Your task to perform on an android device: change the clock style Image 0: 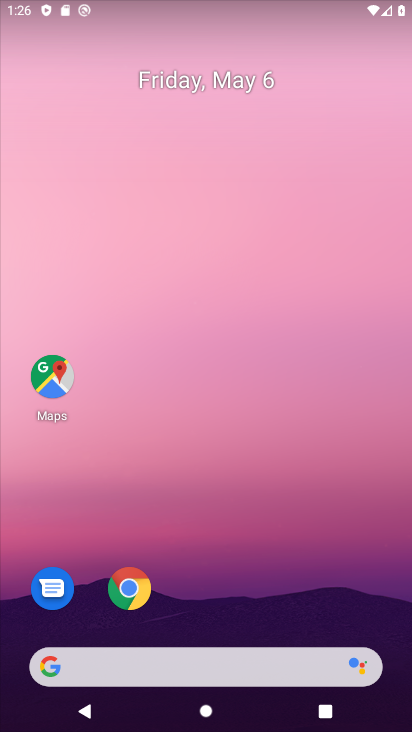
Step 0: drag from (402, 571) to (290, 109)
Your task to perform on an android device: change the clock style Image 1: 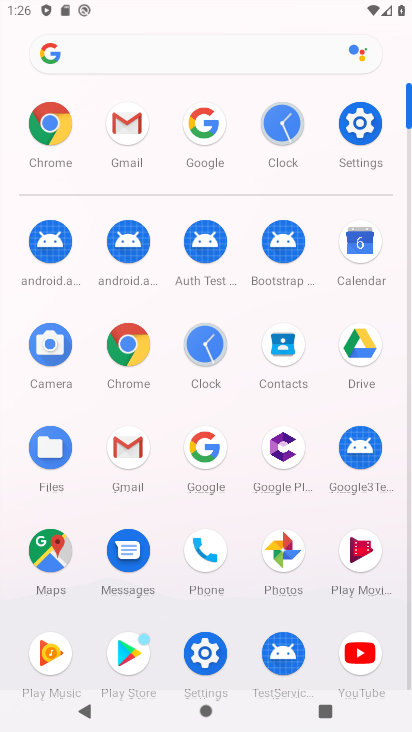
Step 1: click (205, 341)
Your task to perform on an android device: change the clock style Image 2: 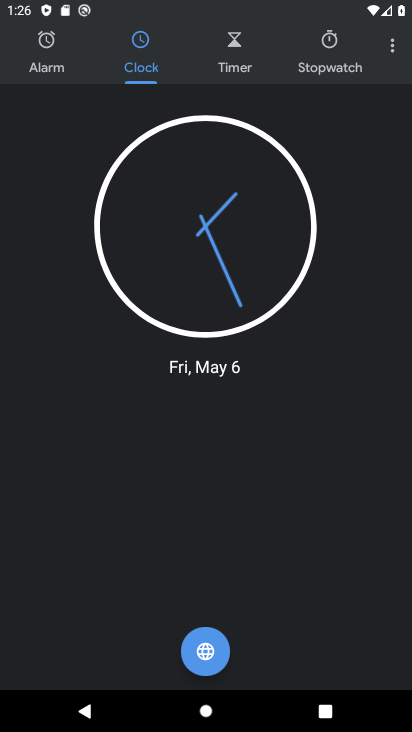
Step 2: click (393, 51)
Your task to perform on an android device: change the clock style Image 3: 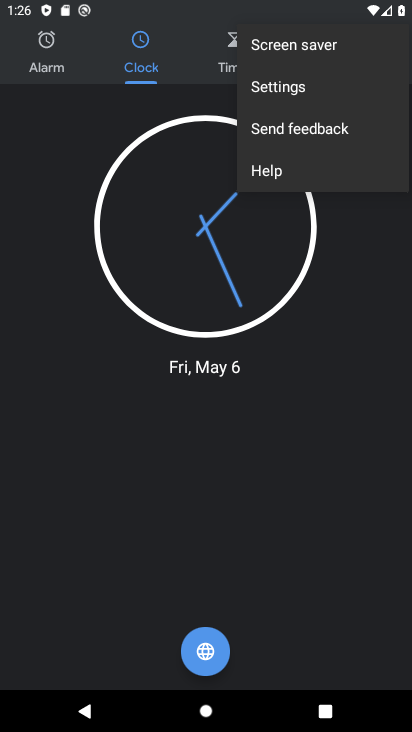
Step 3: click (283, 95)
Your task to perform on an android device: change the clock style Image 4: 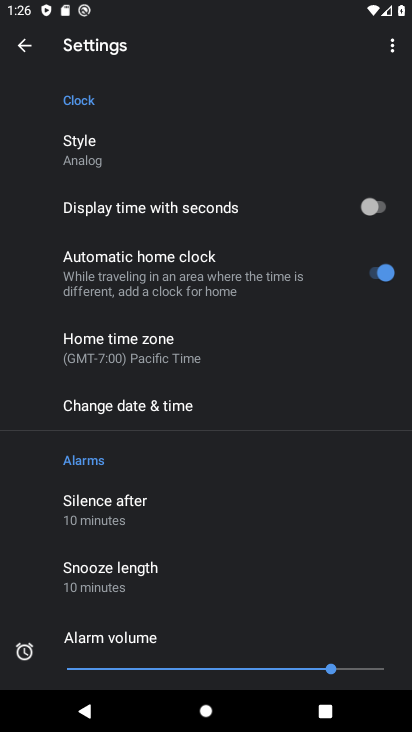
Step 4: click (85, 156)
Your task to perform on an android device: change the clock style Image 5: 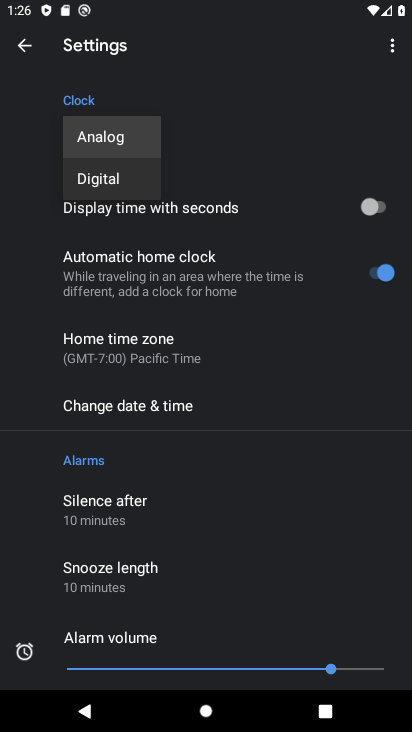
Step 5: click (132, 175)
Your task to perform on an android device: change the clock style Image 6: 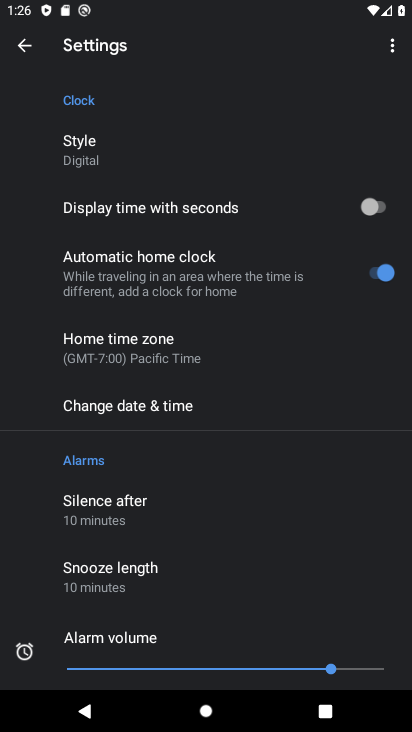
Step 6: task complete